Your task to perform on an android device: toggle location history Image 0: 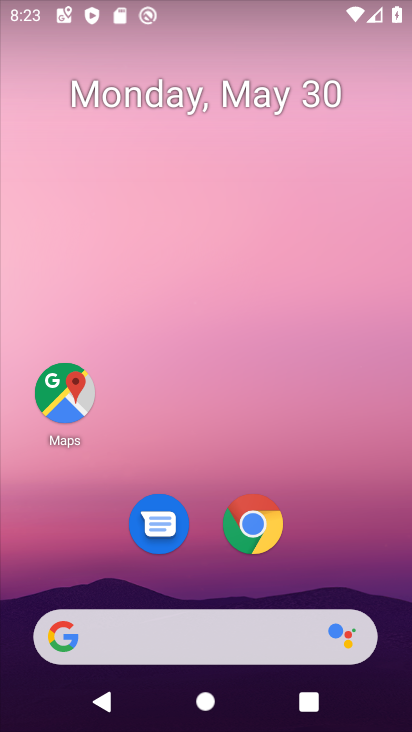
Step 0: drag from (192, 438) to (213, 0)
Your task to perform on an android device: toggle location history Image 1: 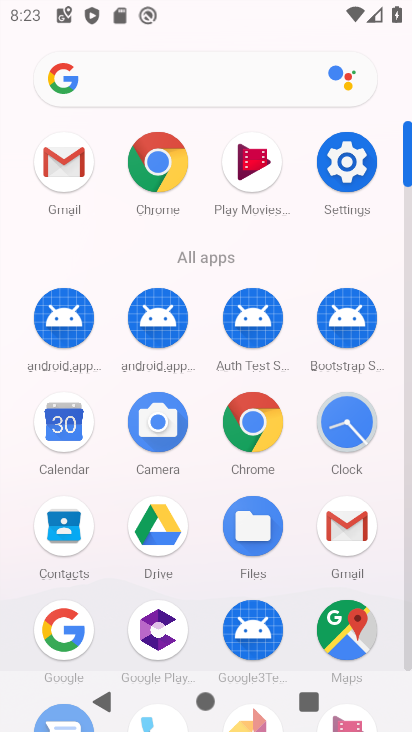
Step 1: click (342, 166)
Your task to perform on an android device: toggle location history Image 2: 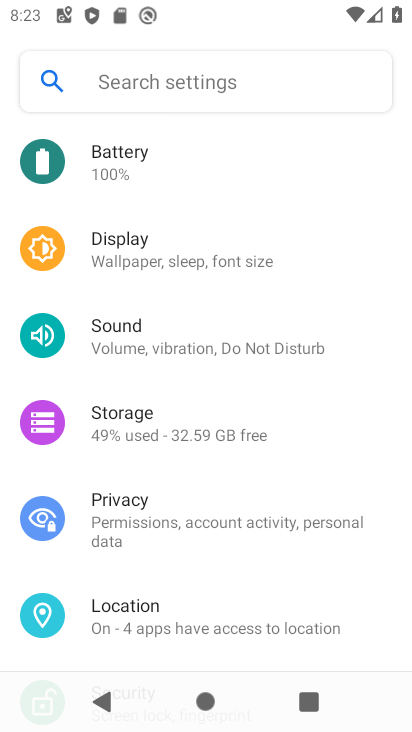
Step 2: drag from (213, 534) to (221, 424)
Your task to perform on an android device: toggle location history Image 3: 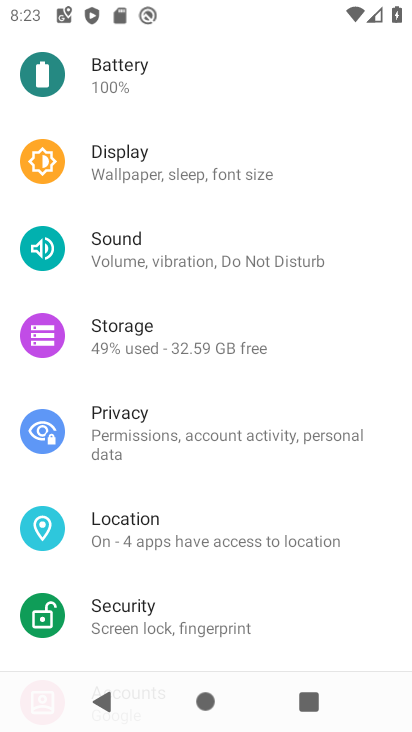
Step 3: click (212, 520)
Your task to perform on an android device: toggle location history Image 4: 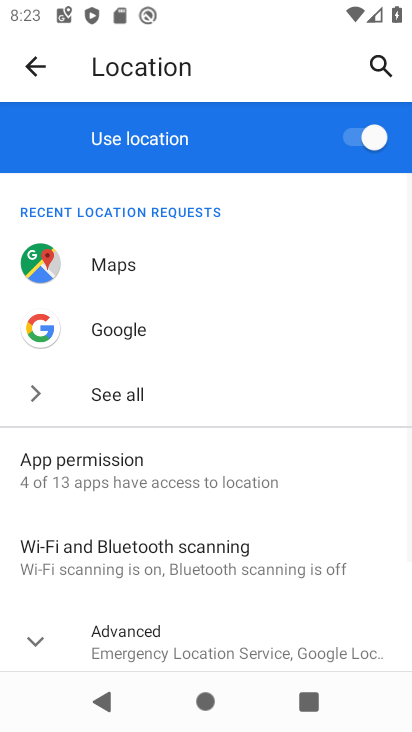
Step 4: click (31, 629)
Your task to perform on an android device: toggle location history Image 5: 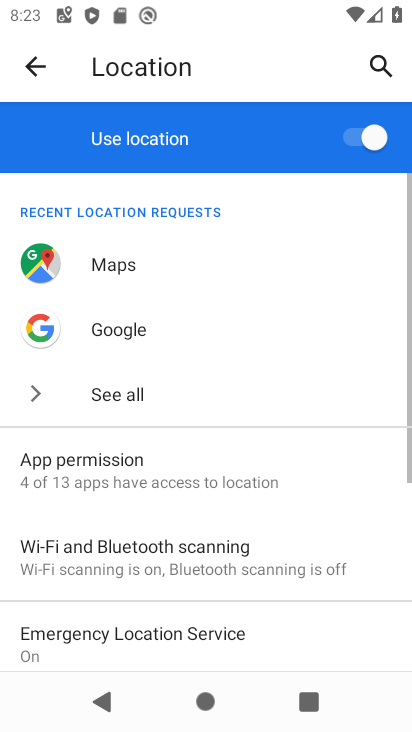
Step 5: drag from (236, 455) to (287, 123)
Your task to perform on an android device: toggle location history Image 6: 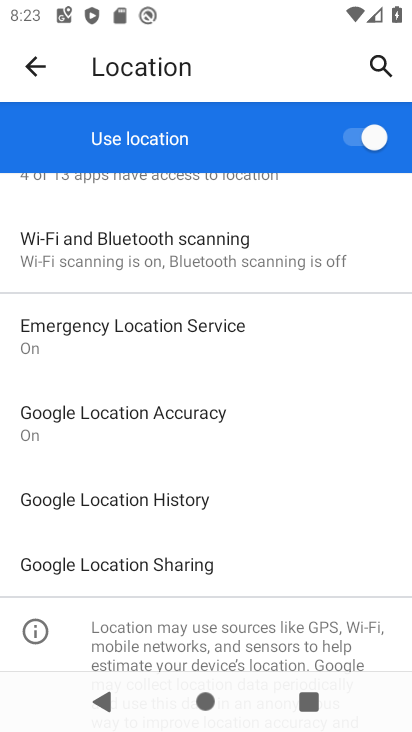
Step 6: click (189, 492)
Your task to perform on an android device: toggle location history Image 7: 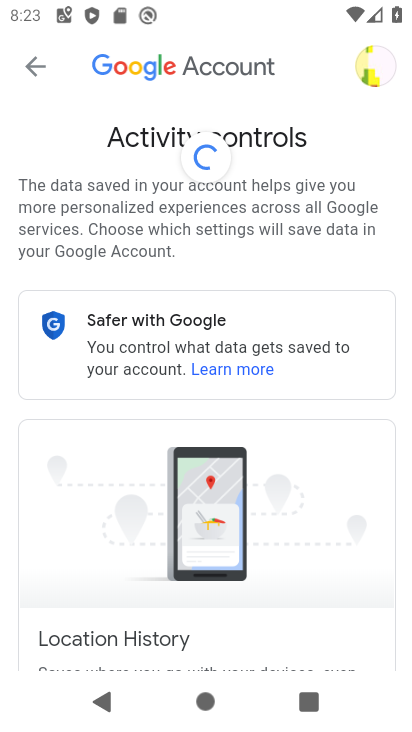
Step 7: drag from (298, 487) to (296, 68)
Your task to perform on an android device: toggle location history Image 8: 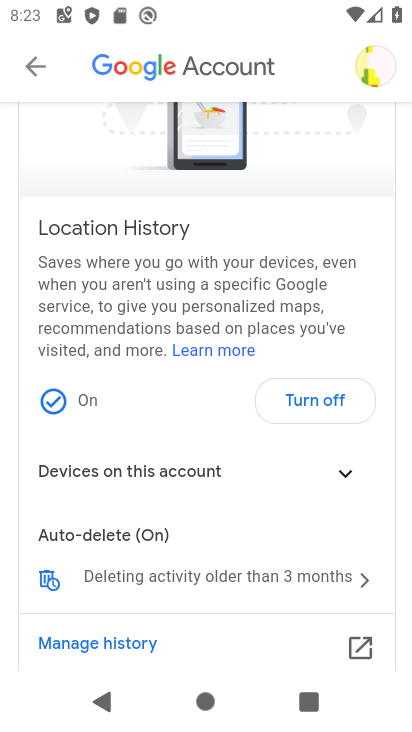
Step 8: click (299, 398)
Your task to perform on an android device: toggle location history Image 9: 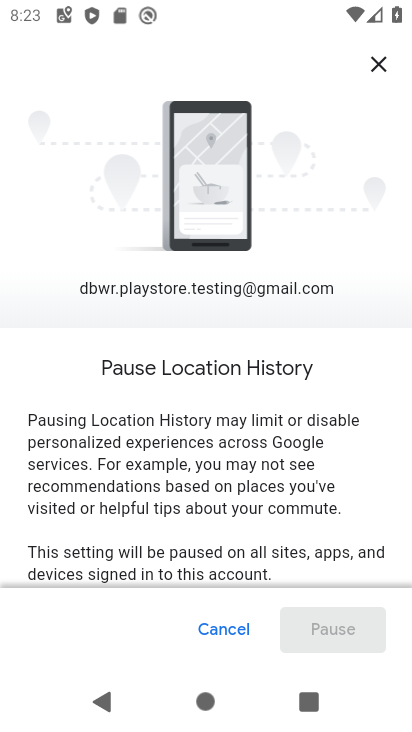
Step 9: drag from (299, 495) to (316, 1)
Your task to perform on an android device: toggle location history Image 10: 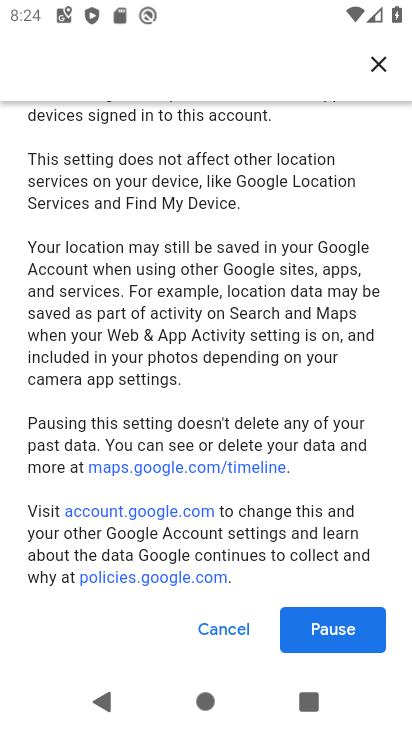
Step 10: click (361, 615)
Your task to perform on an android device: toggle location history Image 11: 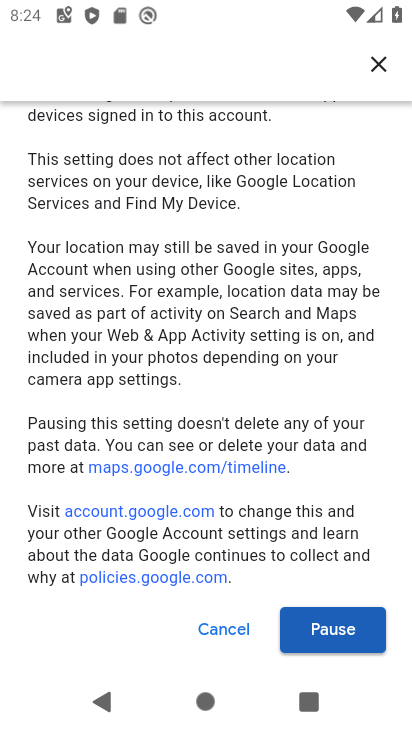
Step 11: click (364, 630)
Your task to perform on an android device: toggle location history Image 12: 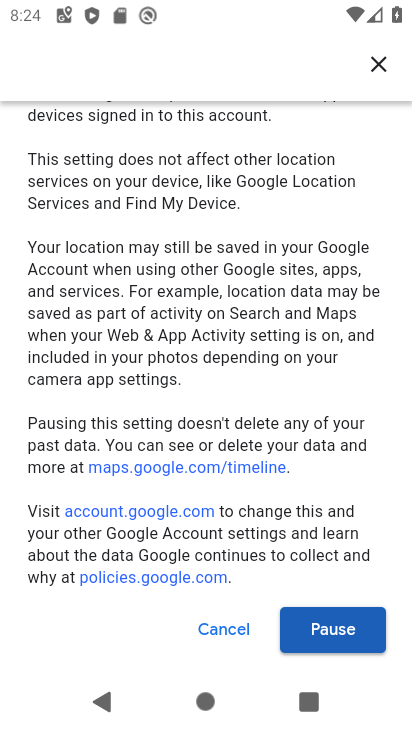
Step 12: click (335, 632)
Your task to perform on an android device: toggle location history Image 13: 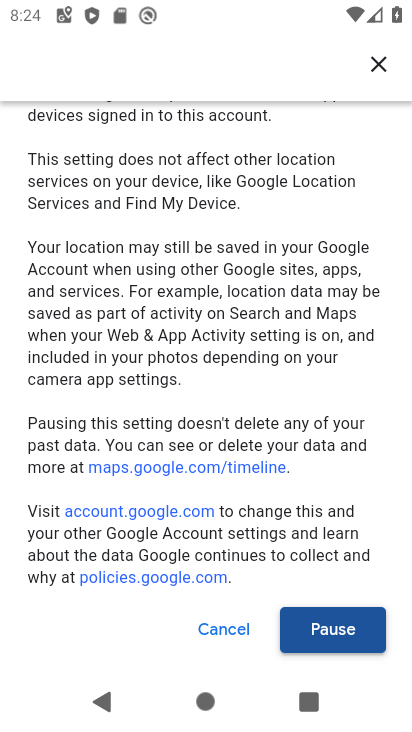
Step 13: click (335, 627)
Your task to perform on an android device: toggle location history Image 14: 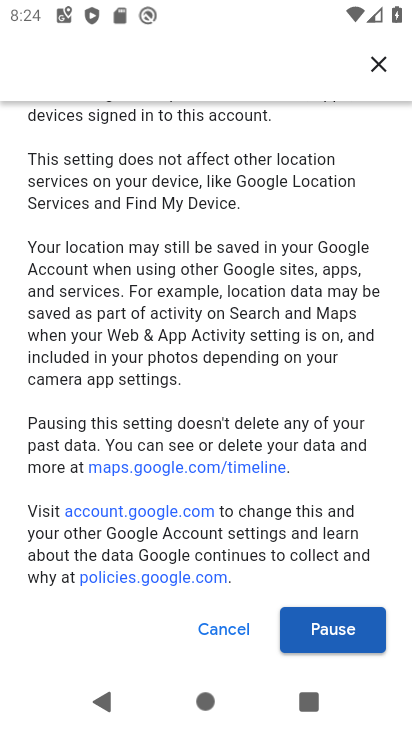
Step 14: click (363, 630)
Your task to perform on an android device: toggle location history Image 15: 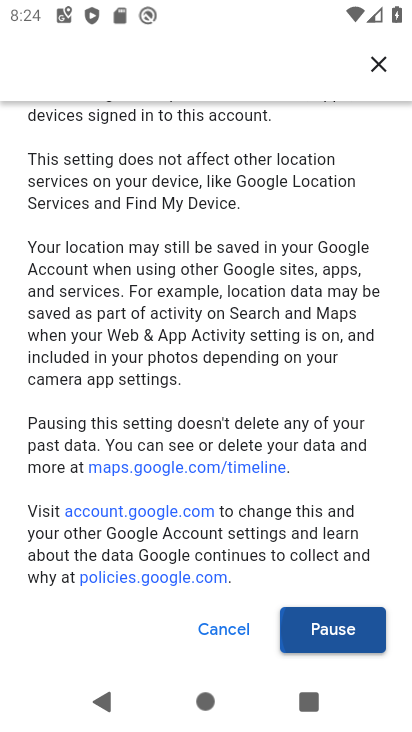
Step 15: click (358, 633)
Your task to perform on an android device: toggle location history Image 16: 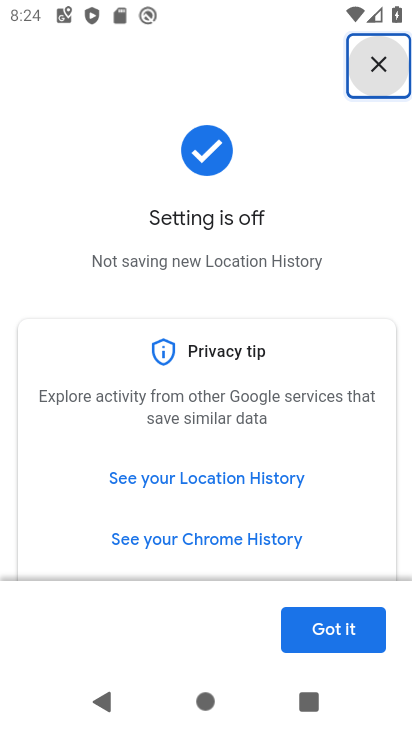
Step 16: click (358, 633)
Your task to perform on an android device: toggle location history Image 17: 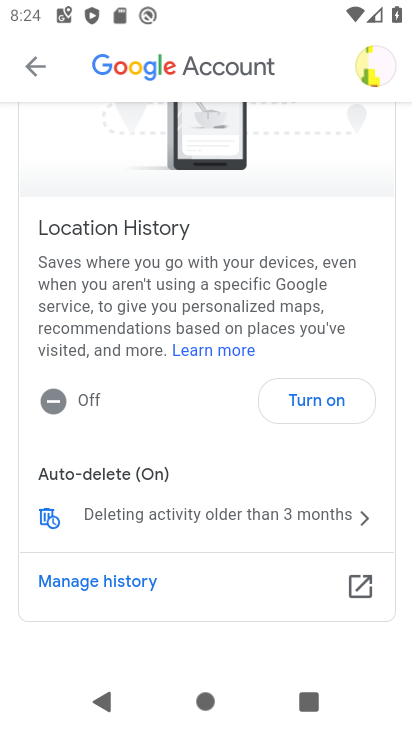
Step 17: click (358, 633)
Your task to perform on an android device: toggle location history Image 18: 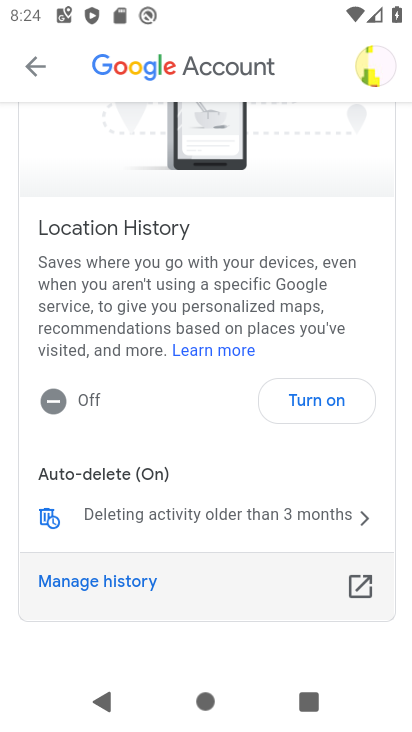
Step 18: task complete